Your task to perform on an android device: Go to display settings Image 0: 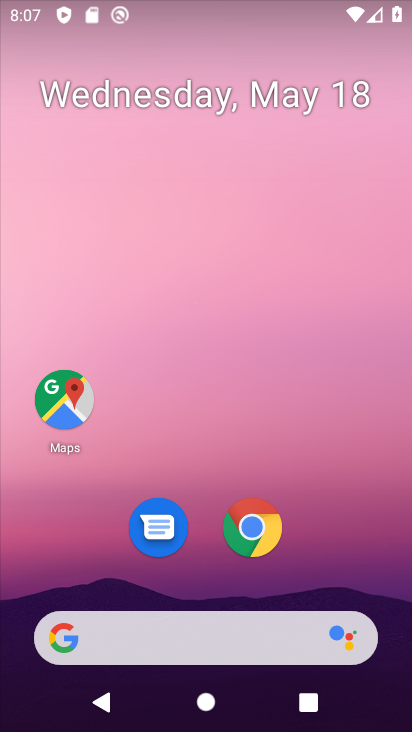
Step 0: drag from (346, 616) to (160, 13)
Your task to perform on an android device: Go to display settings Image 1: 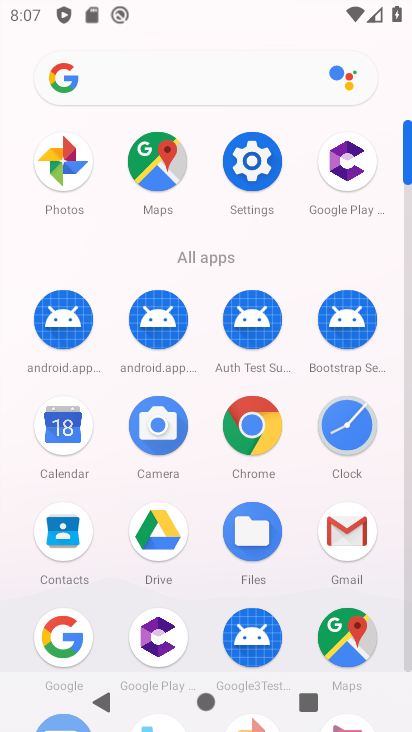
Step 1: click (256, 159)
Your task to perform on an android device: Go to display settings Image 2: 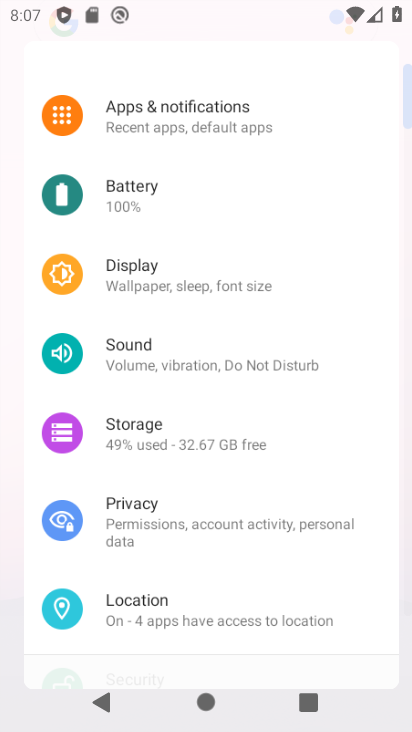
Step 2: click (258, 164)
Your task to perform on an android device: Go to display settings Image 3: 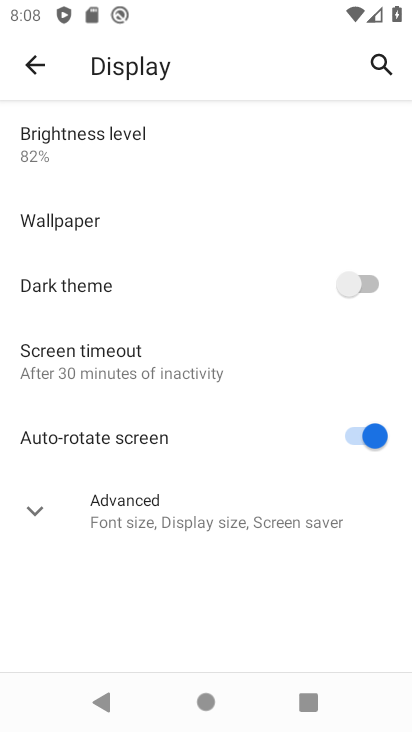
Step 3: task complete